Your task to perform on an android device: Do I have any events this weekend? Image 0: 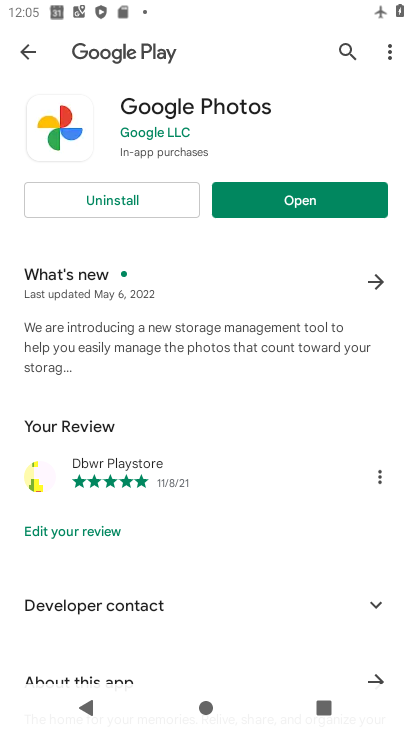
Step 0: press home button
Your task to perform on an android device: Do I have any events this weekend? Image 1: 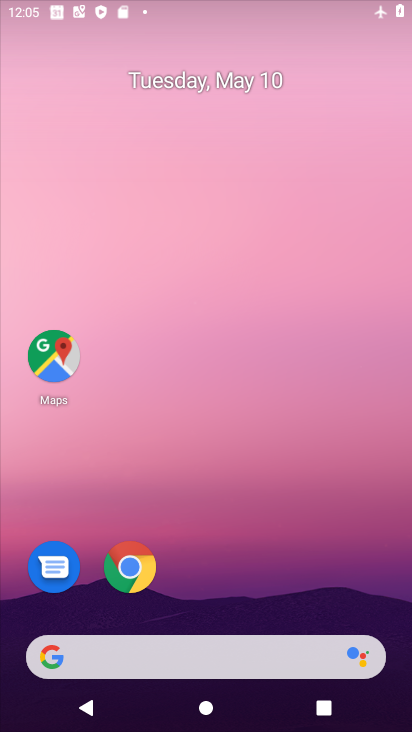
Step 1: drag from (387, 589) to (326, 6)
Your task to perform on an android device: Do I have any events this weekend? Image 2: 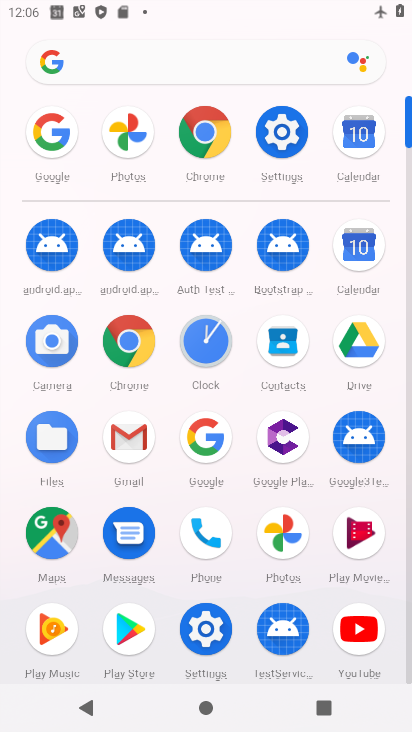
Step 2: click (352, 273)
Your task to perform on an android device: Do I have any events this weekend? Image 3: 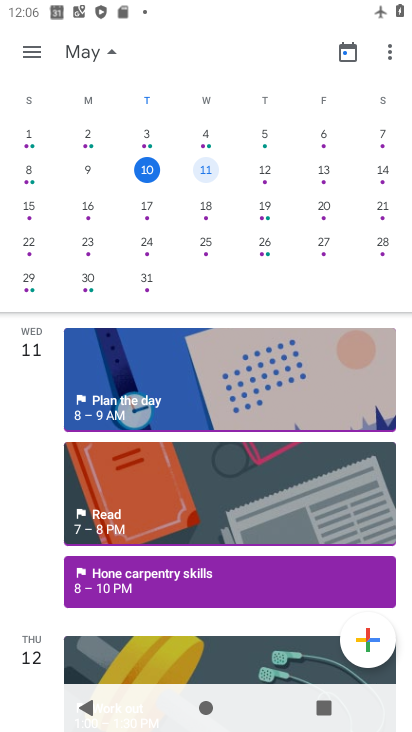
Step 3: click (26, 54)
Your task to perform on an android device: Do I have any events this weekend? Image 4: 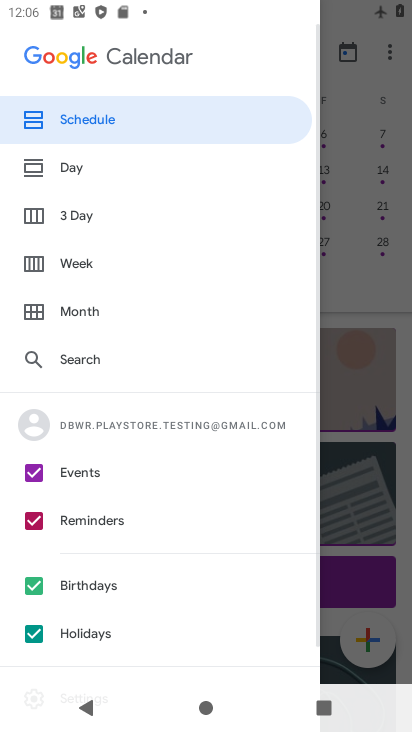
Step 4: click (130, 103)
Your task to perform on an android device: Do I have any events this weekend? Image 5: 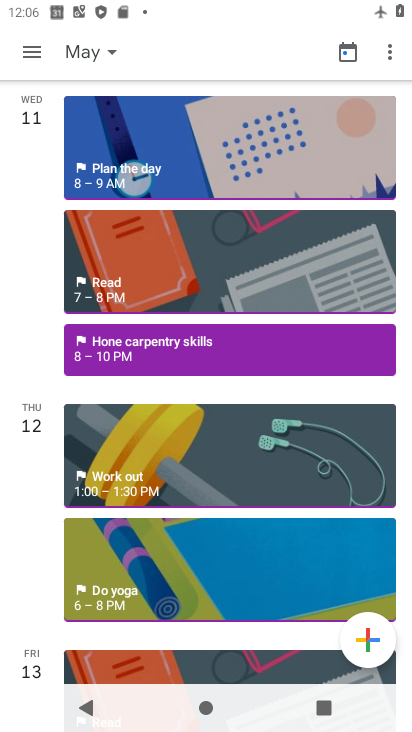
Step 5: task complete